Your task to perform on an android device: open the mobile data screen to see how much data has been used Image 0: 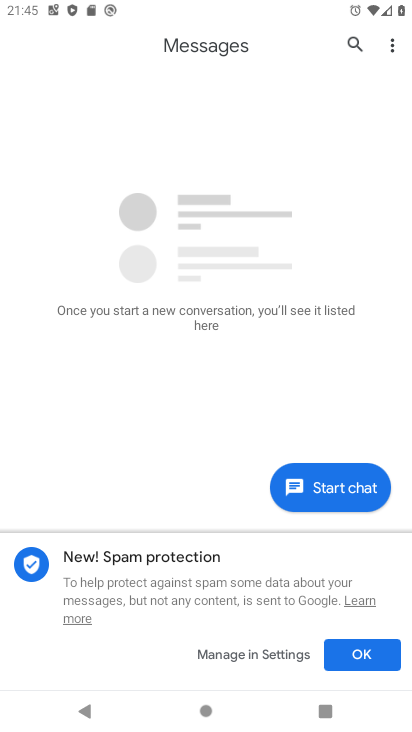
Step 0: press home button
Your task to perform on an android device: open the mobile data screen to see how much data has been used Image 1: 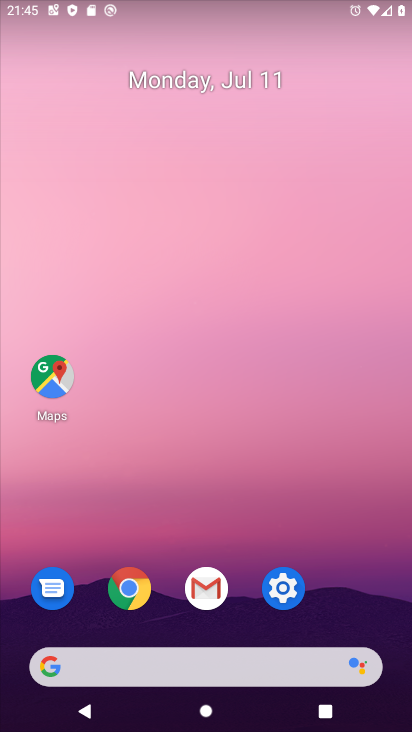
Step 1: click (281, 590)
Your task to perform on an android device: open the mobile data screen to see how much data has been used Image 2: 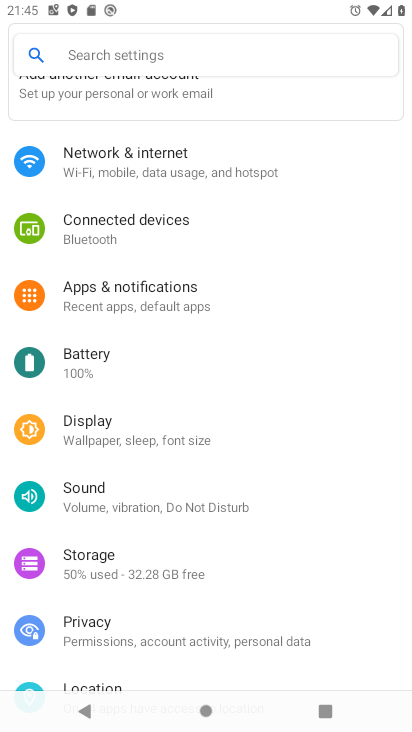
Step 2: click (123, 45)
Your task to perform on an android device: open the mobile data screen to see how much data has been used Image 3: 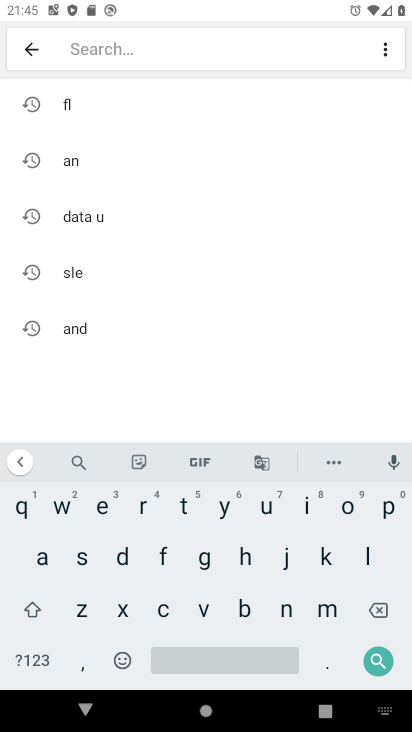
Step 3: click (77, 227)
Your task to perform on an android device: open the mobile data screen to see how much data has been used Image 4: 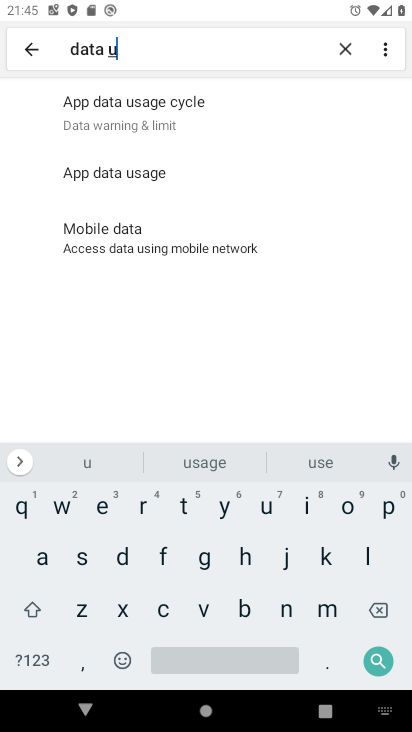
Step 4: click (159, 180)
Your task to perform on an android device: open the mobile data screen to see how much data has been used Image 5: 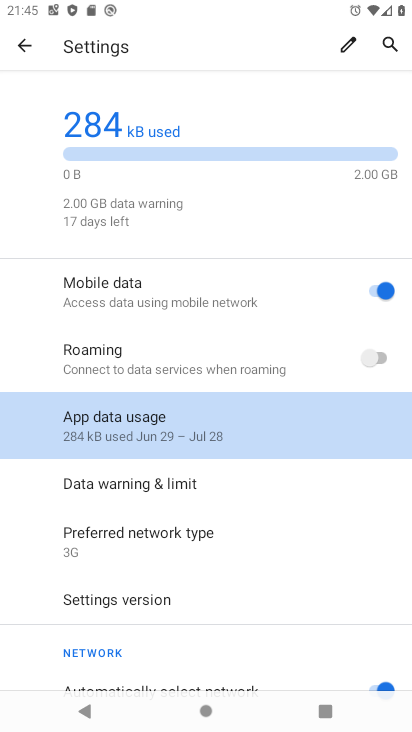
Step 5: click (162, 418)
Your task to perform on an android device: open the mobile data screen to see how much data has been used Image 6: 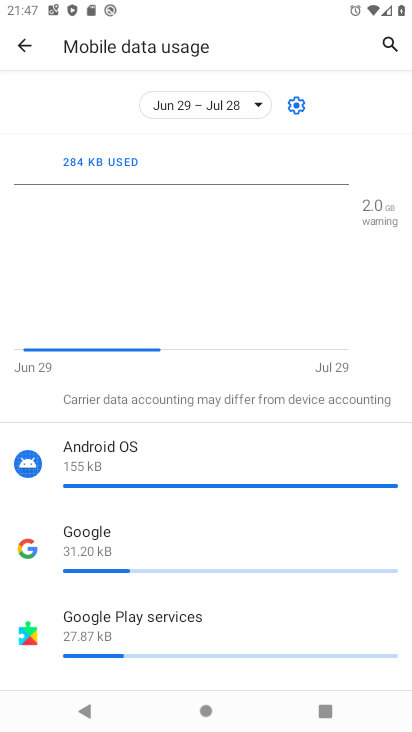
Step 6: task complete